Your task to perform on an android device: Open settings Image 0: 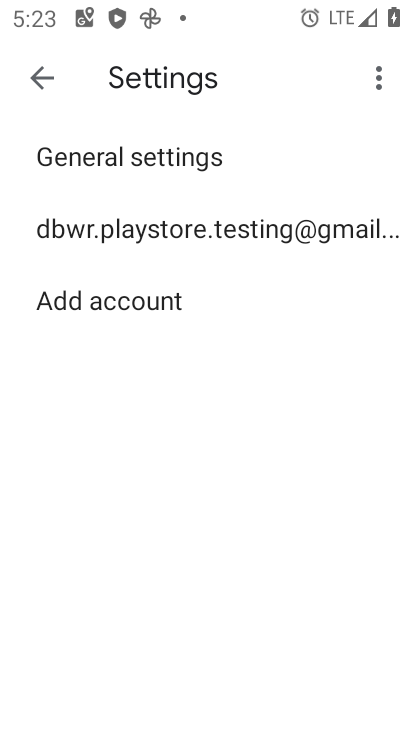
Step 0: press home button
Your task to perform on an android device: Open settings Image 1: 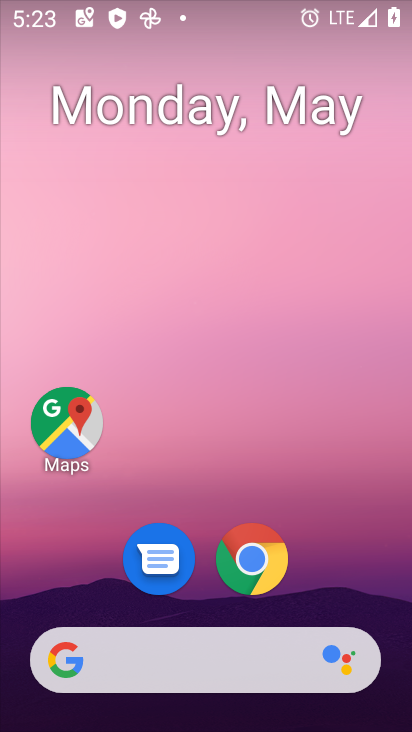
Step 1: drag from (290, 450) to (321, 27)
Your task to perform on an android device: Open settings Image 2: 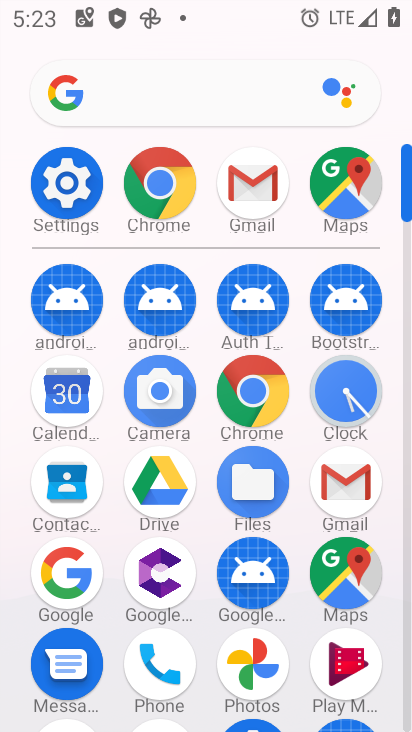
Step 2: click (71, 196)
Your task to perform on an android device: Open settings Image 3: 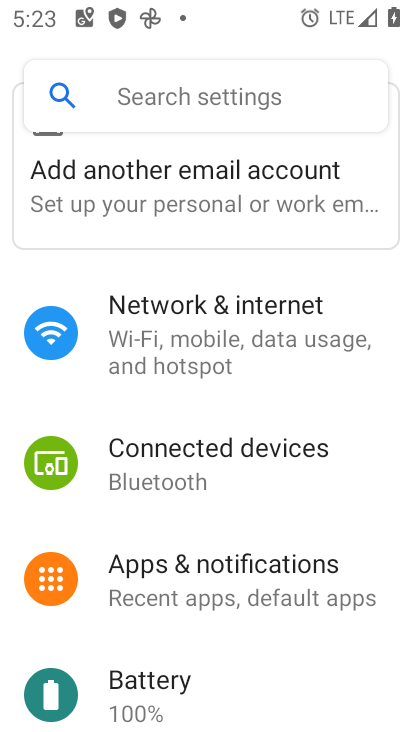
Step 3: task complete